Your task to perform on an android device: Open Wikipedia Image 0: 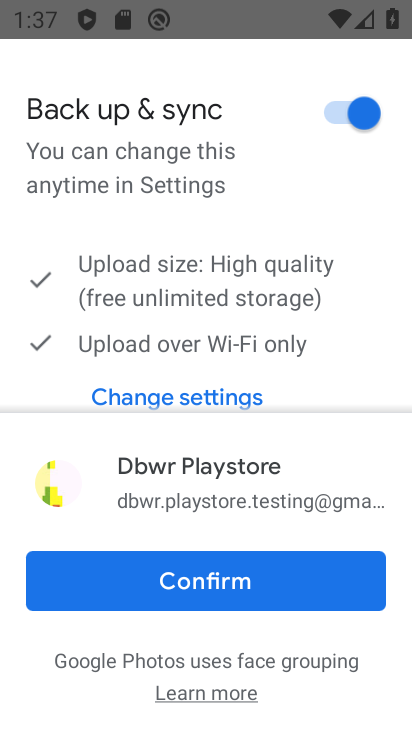
Step 0: press home button
Your task to perform on an android device: Open Wikipedia Image 1: 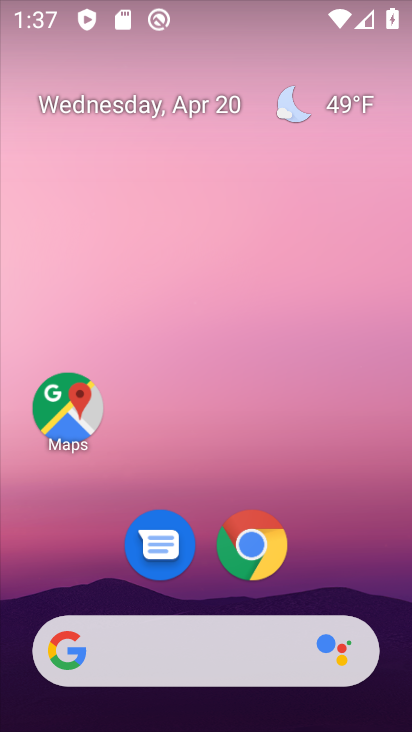
Step 1: click (251, 546)
Your task to perform on an android device: Open Wikipedia Image 2: 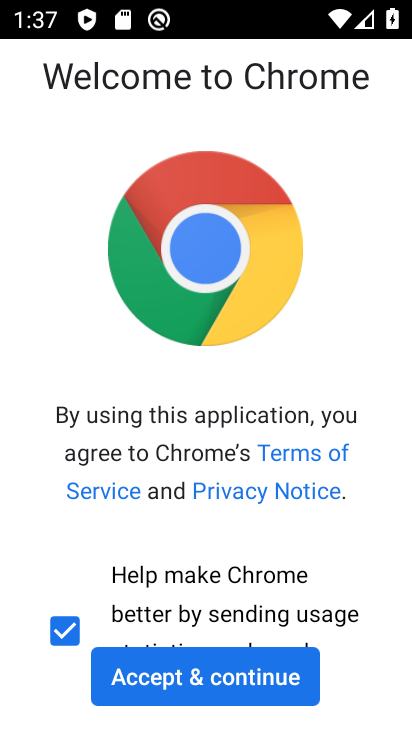
Step 2: click (226, 681)
Your task to perform on an android device: Open Wikipedia Image 3: 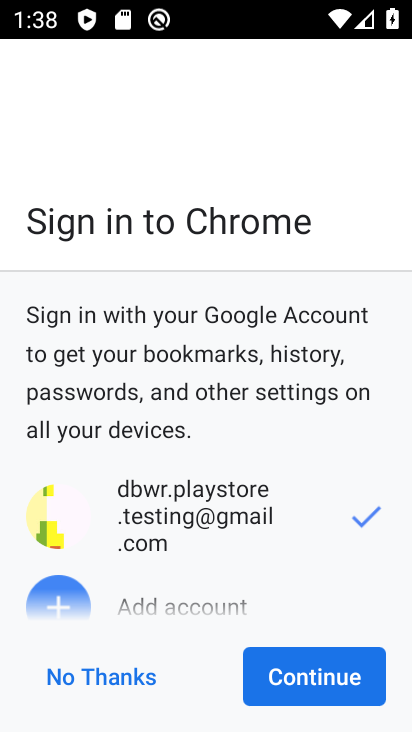
Step 3: click (298, 684)
Your task to perform on an android device: Open Wikipedia Image 4: 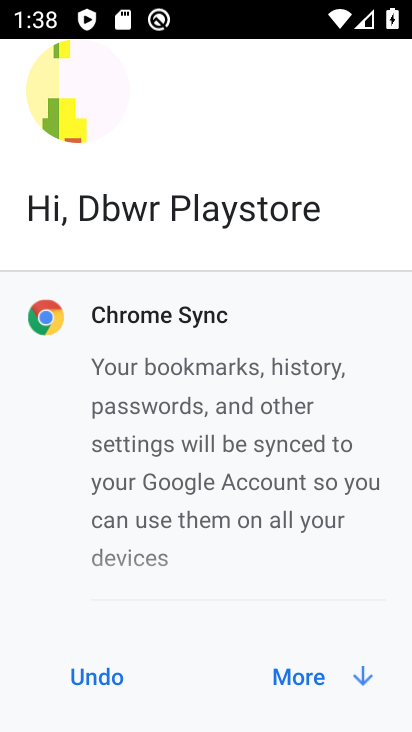
Step 4: click (298, 684)
Your task to perform on an android device: Open Wikipedia Image 5: 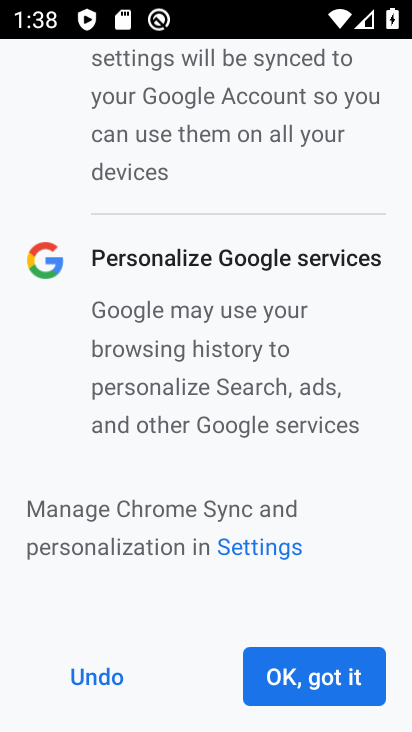
Step 5: click (298, 684)
Your task to perform on an android device: Open Wikipedia Image 6: 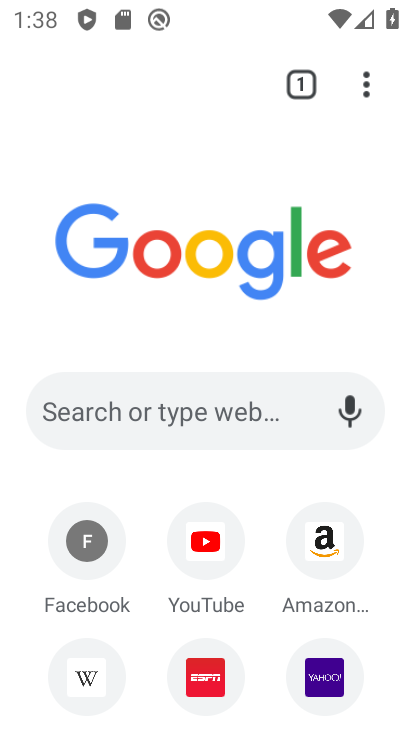
Step 6: drag from (266, 344) to (254, 291)
Your task to perform on an android device: Open Wikipedia Image 7: 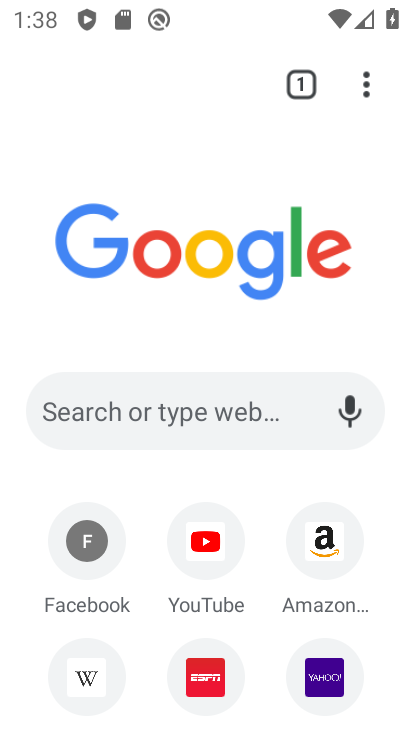
Step 7: click (91, 683)
Your task to perform on an android device: Open Wikipedia Image 8: 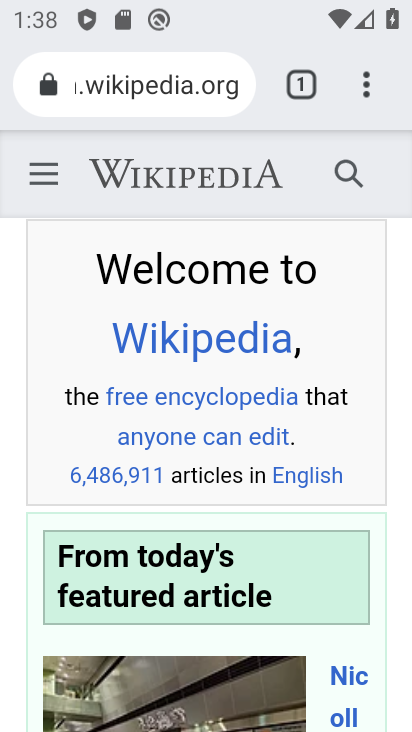
Step 8: task complete